Your task to perform on an android device: Go to network settings Image 0: 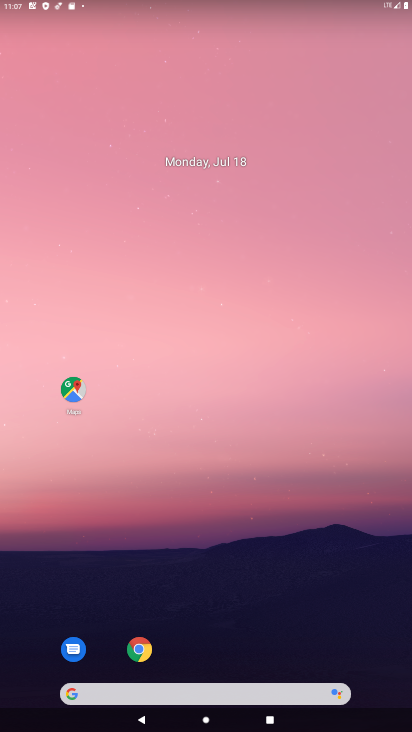
Step 0: drag from (175, 720) to (284, 59)
Your task to perform on an android device: Go to network settings Image 1: 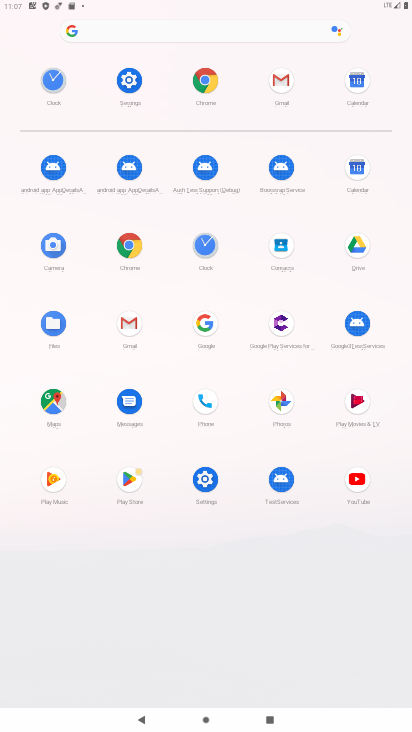
Step 1: click (123, 83)
Your task to perform on an android device: Go to network settings Image 2: 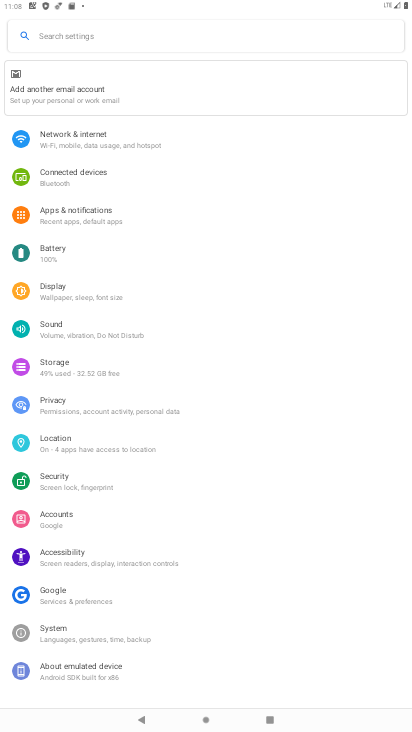
Step 2: click (111, 137)
Your task to perform on an android device: Go to network settings Image 3: 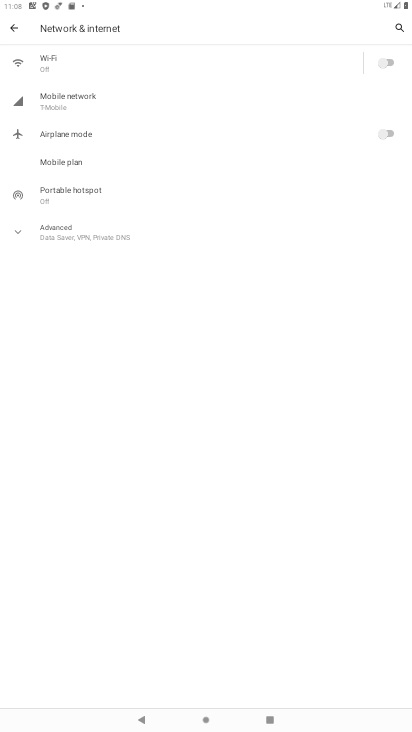
Step 3: task complete